Your task to perform on an android device: Open eBay Image 0: 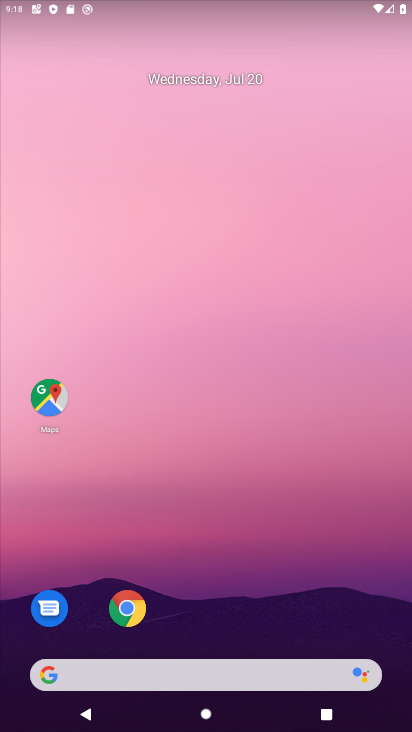
Step 0: click (109, 672)
Your task to perform on an android device: Open eBay Image 1: 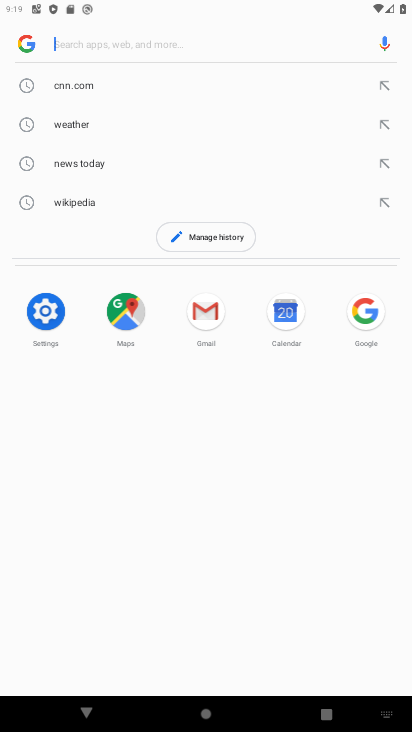
Step 1: type "ebay"
Your task to perform on an android device: Open eBay Image 2: 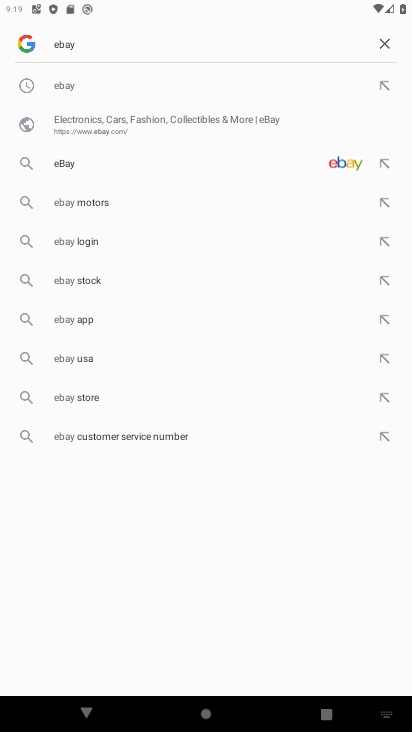
Step 2: click (140, 127)
Your task to perform on an android device: Open eBay Image 3: 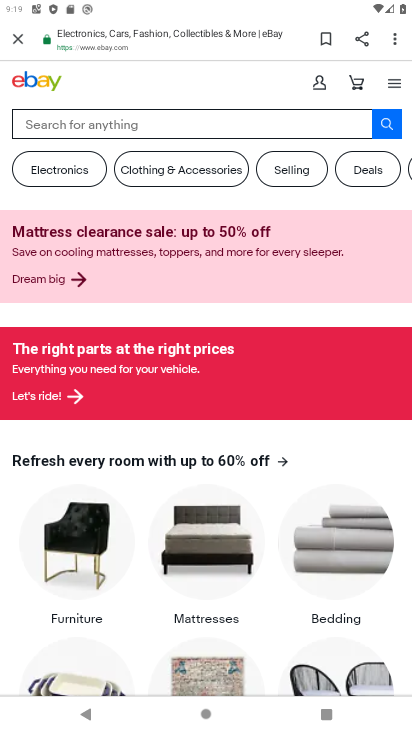
Step 3: task complete